Your task to perform on an android device: Do I have any events tomorrow? Image 0: 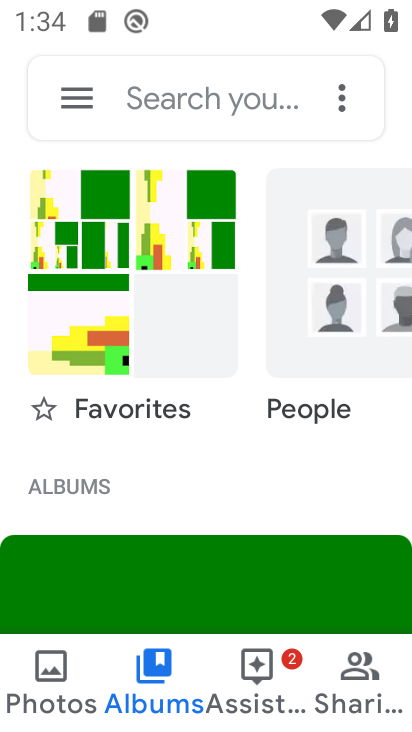
Step 0: press home button
Your task to perform on an android device: Do I have any events tomorrow? Image 1: 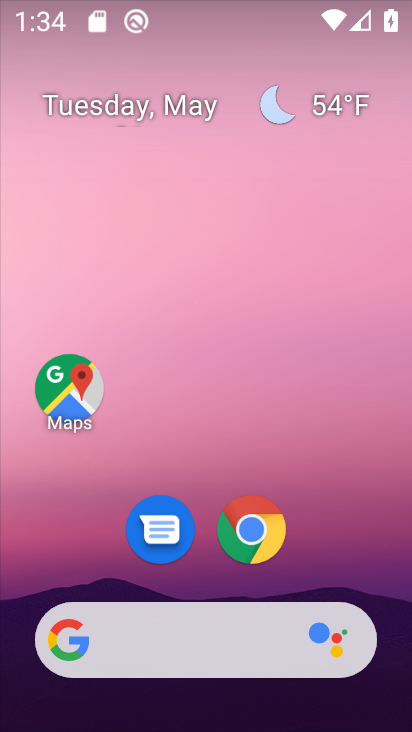
Step 1: drag from (301, 565) to (244, 219)
Your task to perform on an android device: Do I have any events tomorrow? Image 2: 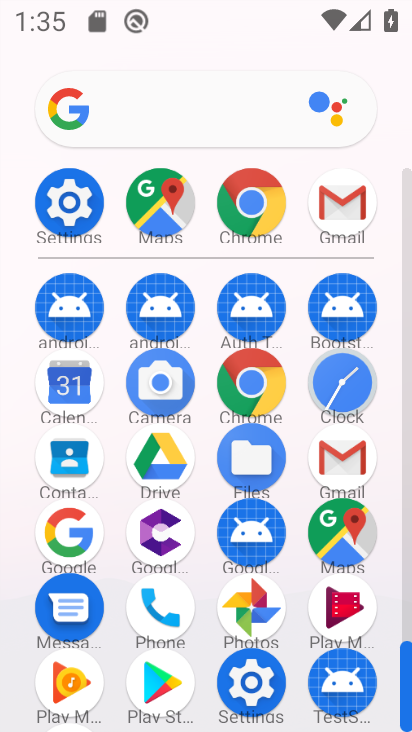
Step 2: click (63, 378)
Your task to perform on an android device: Do I have any events tomorrow? Image 3: 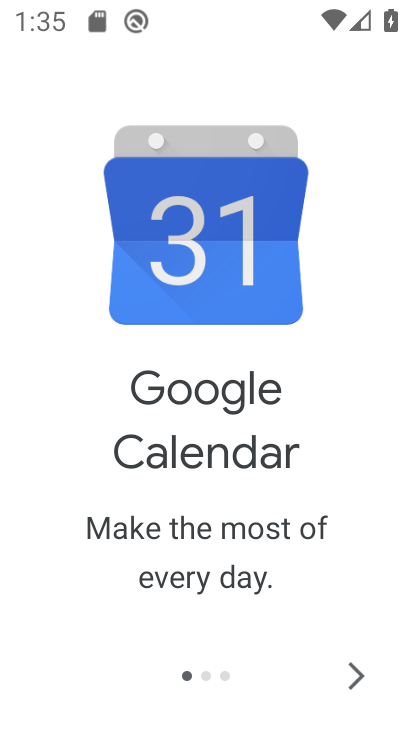
Step 3: click (353, 673)
Your task to perform on an android device: Do I have any events tomorrow? Image 4: 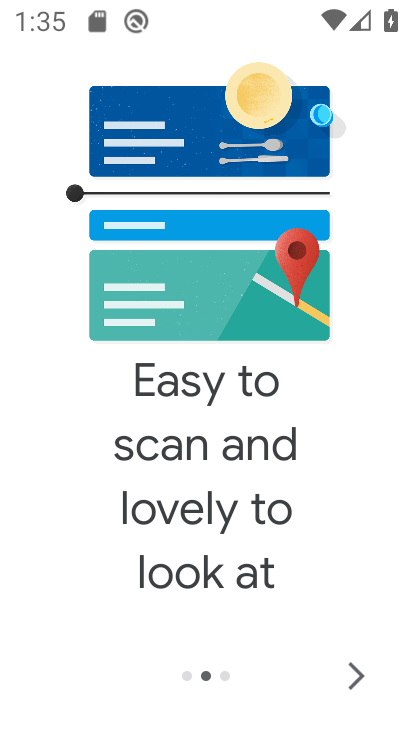
Step 4: click (353, 673)
Your task to perform on an android device: Do I have any events tomorrow? Image 5: 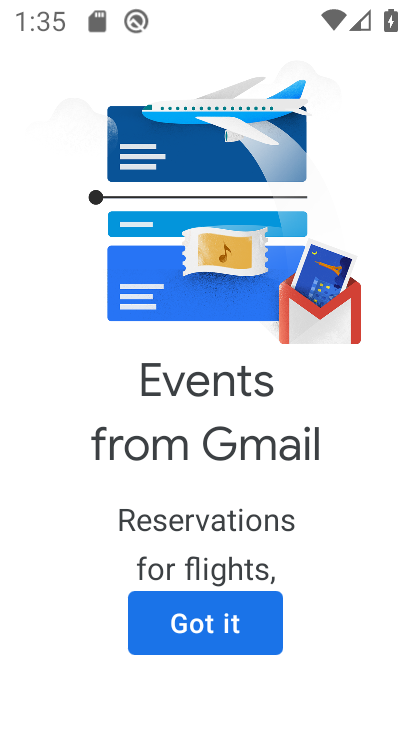
Step 5: click (353, 673)
Your task to perform on an android device: Do I have any events tomorrow? Image 6: 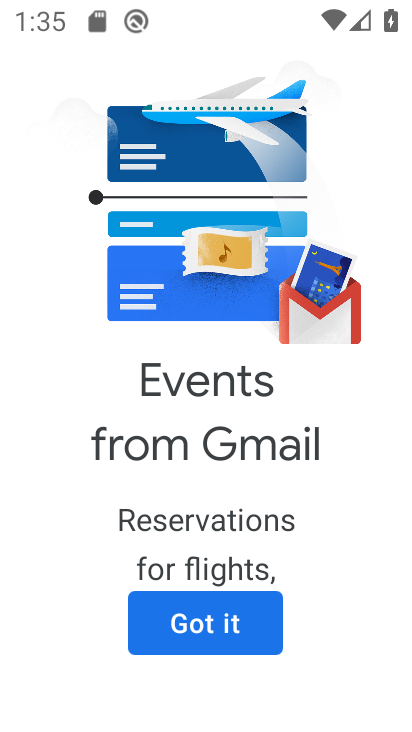
Step 6: click (246, 634)
Your task to perform on an android device: Do I have any events tomorrow? Image 7: 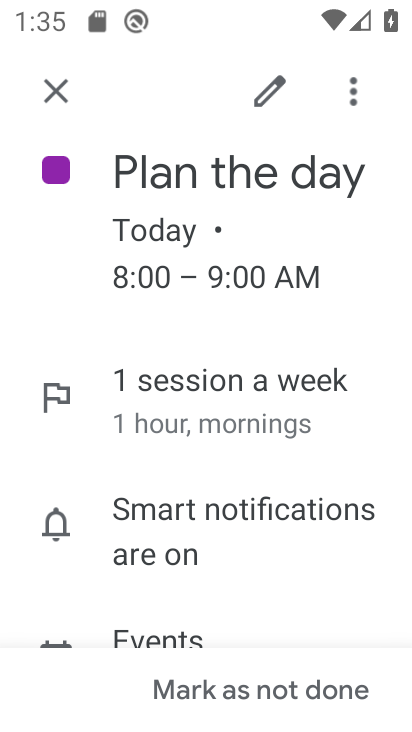
Step 7: click (45, 89)
Your task to perform on an android device: Do I have any events tomorrow? Image 8: 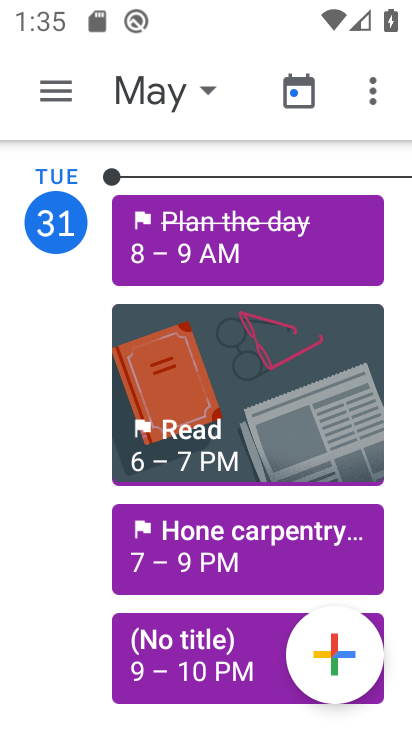
Step 8: task complete